Your task to perform on an android device: turn off notifications settings in the gmail app Image 0: 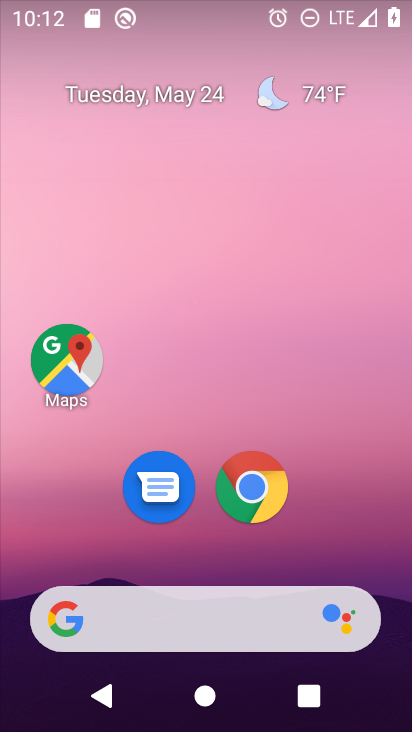
Step 0: drag from (361, 581) to (341, 0)
Your task to perform on an android device: turn off notifications settings in the gmail app Image 1: 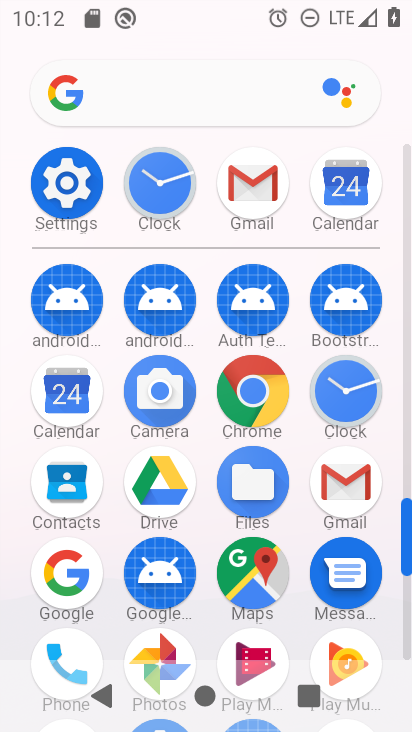
Step 1: click (258, 204)
Your task to perform on an android device: turn off notifications settings in the gmail app Image 2: 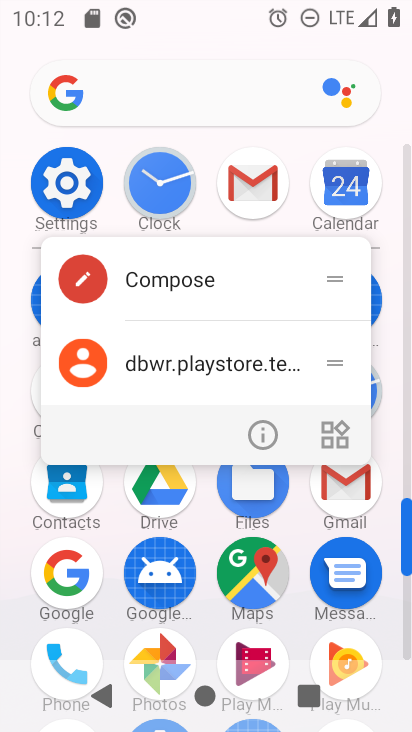
Step 2: click (262, 191)
Your task to perform on an android device: turn off notifications settings in the gmail app Image 3: 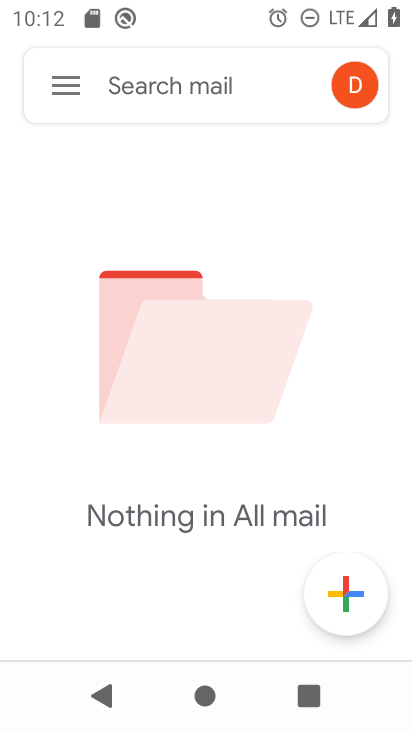
Step 3: click (53, 93)
Your task to perform on an android device: turn off notifications settings in the gmail app Image 4: 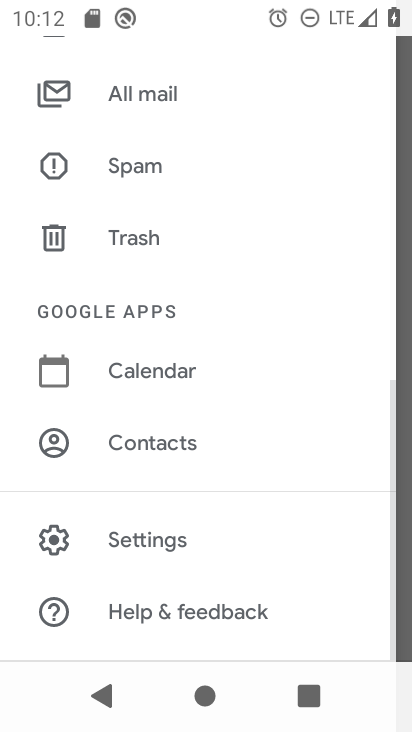
Step 4: click (173, 531)
Your task to perform on an android device: turn off notifications settings in the gmail app Image 5: 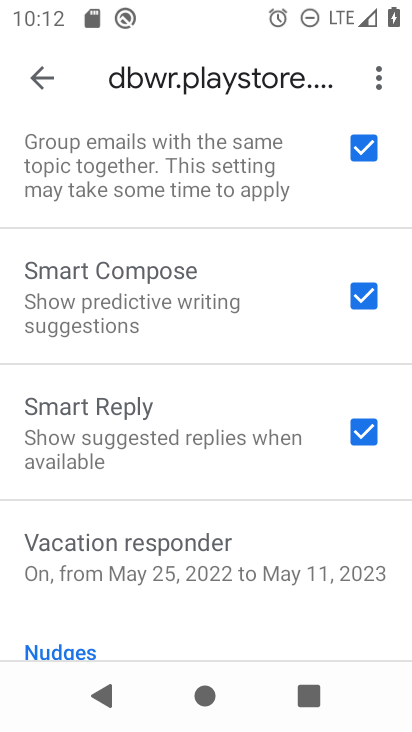
Step 5: click (35, 66)
Your task to perform on an android device: turn off notifications settings in the gmail app Image 6: 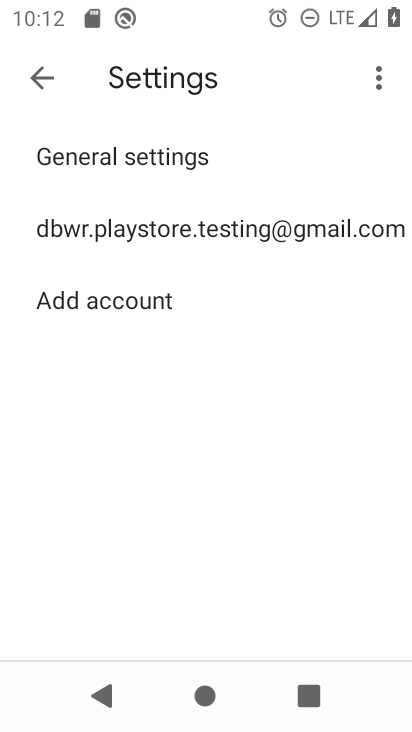
Step 6: click (69, 169)
Your task to perform on an android device: turn off notifications settings in the gmail app Image 7: 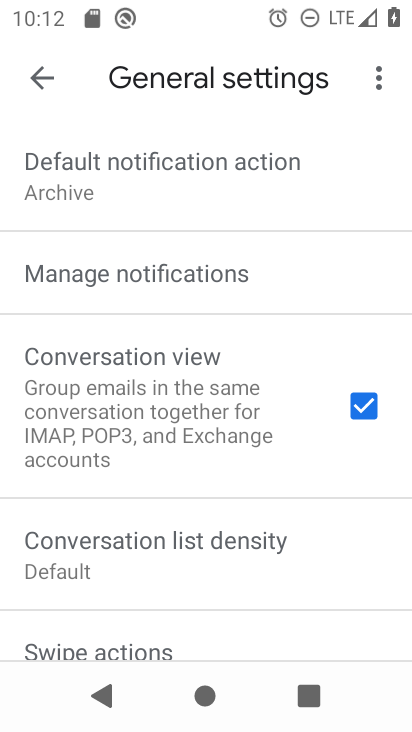
Step 7: click (115, 282)
Your task to perform on an android device: turn off notifications settings in the gmail app Image 8: 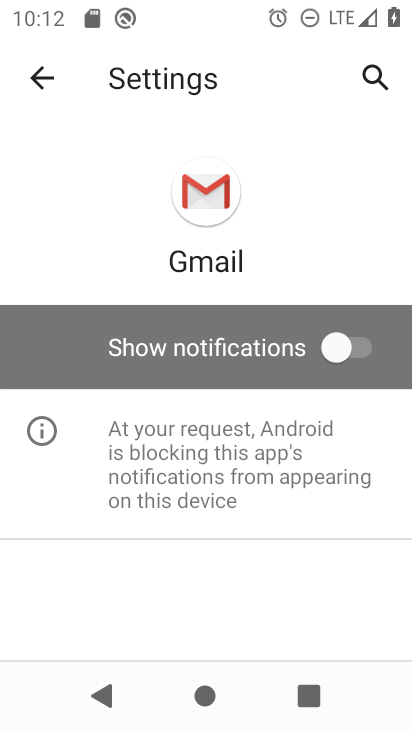
Step 8: task complete